Your task to perform on an android device: Go to Amazon Image 0: 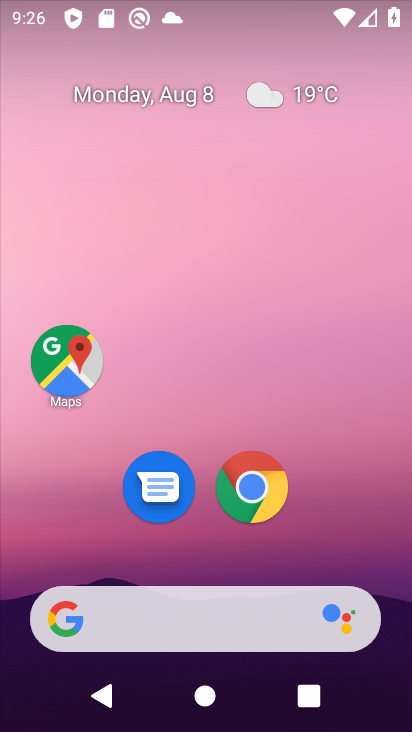
Step 0: click (253, 484)
Your task to perform on an android device: Go to Amazon Image 1: 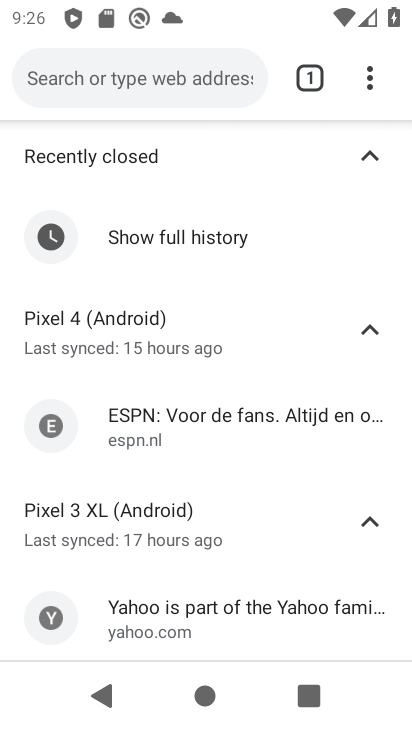
Step 1: click (370, 86)
Your task to perform on an android device: Go to Amazon Image 2: 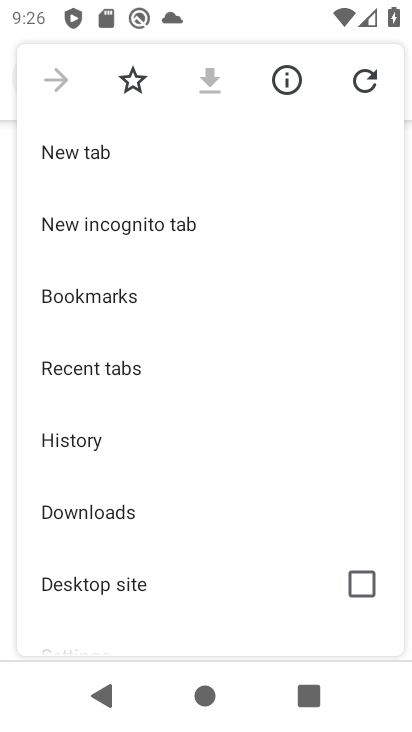
Step 2: click (79, 157)
Your task to perform on an android device: Go to Amazon Image 3: 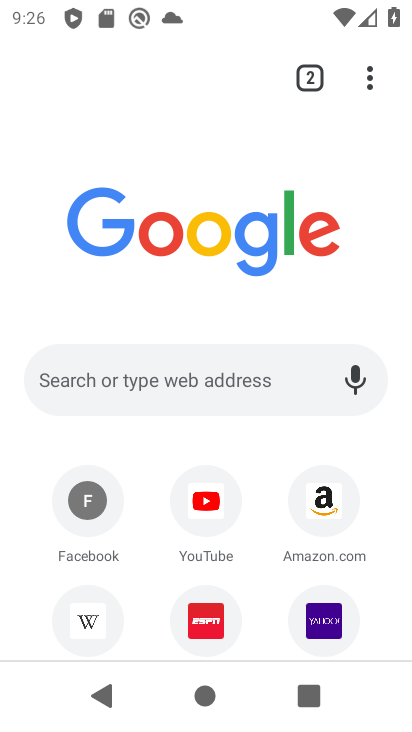
Step 3: click (327, 506)
Your task to perform on an android device: Go to Amazon Image 4: 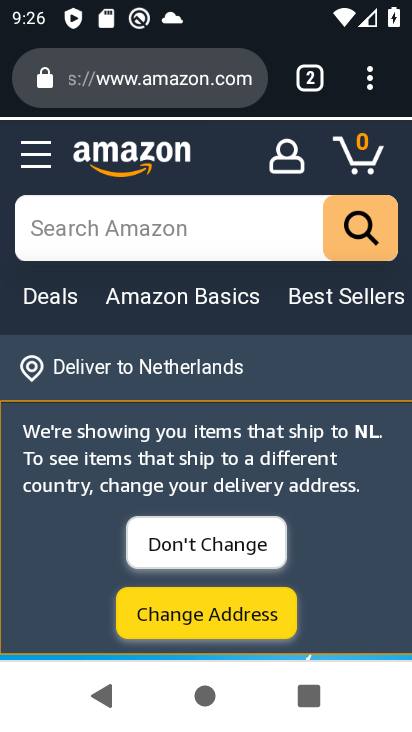
Step 4: task complete